Your task to perform on an android device: Search for pizza restaurants on Maps Image 0: 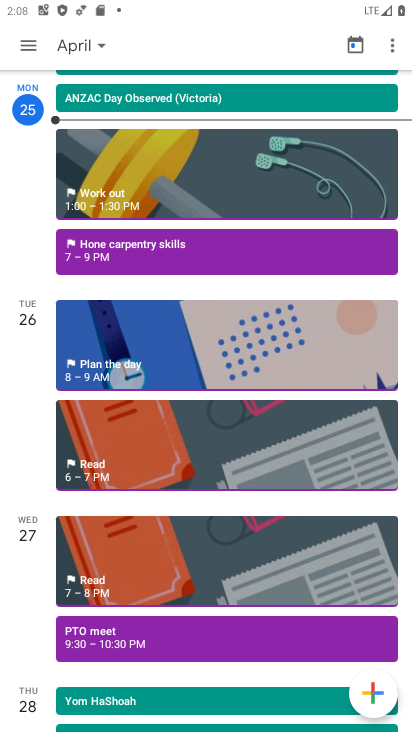
Step 0: press back button
Your task to perform on an android device: Search for pizza restaurants on Maps Image 1: 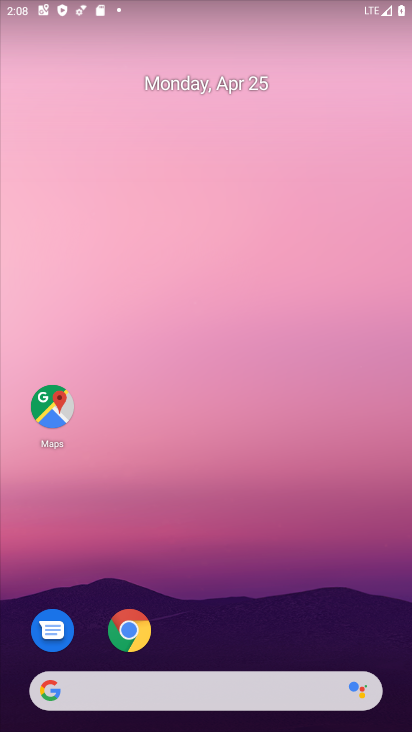
Step 1: drag from (356, 584) to (334, 35)
Your task to perform on an android device: Search for pizza restaurants on Maps Image 2: 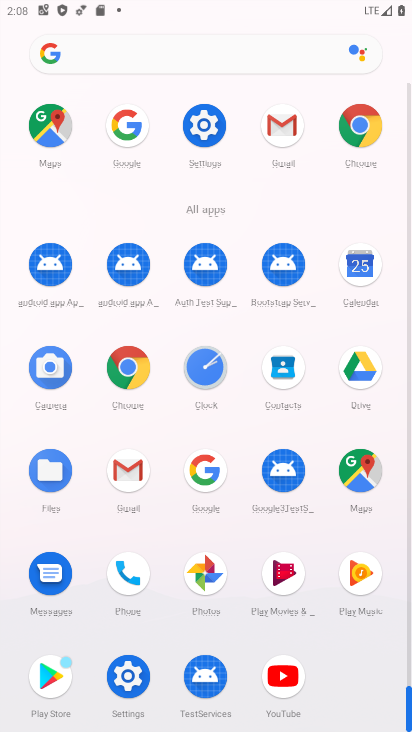
Step 2: click (364, 472)
Your task to perform on an android device: Search for pizza restaurants on Maps Image 3: 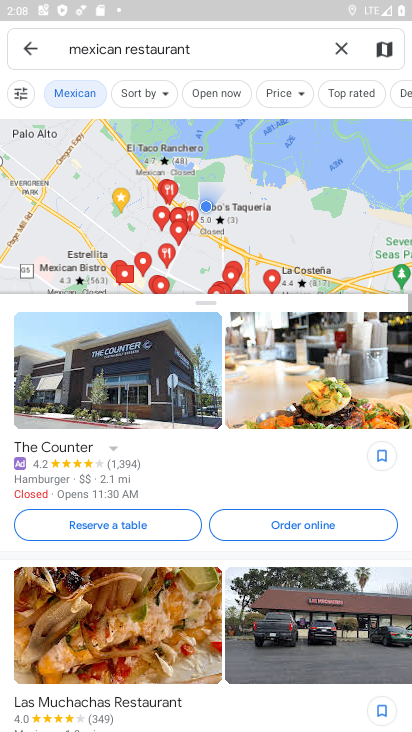
Step 3: click (259, 58)
Your task to perform on an android device: Search for pizza restaurants on Maps Image 4: 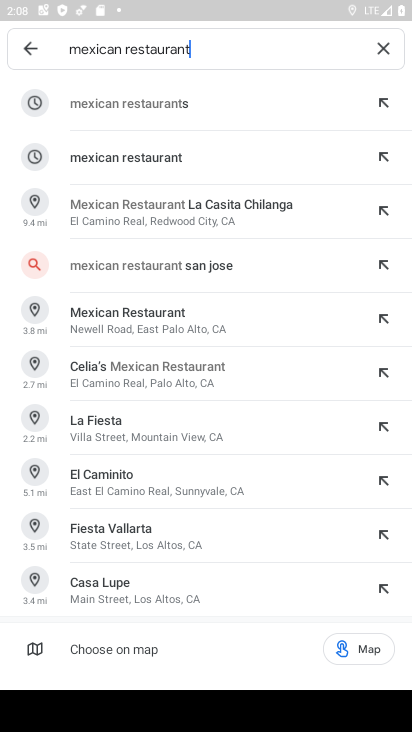
Step 4: click (377, 50)
Your task to perform on an android device: Search for pizza restaurants on Maps Image 5: 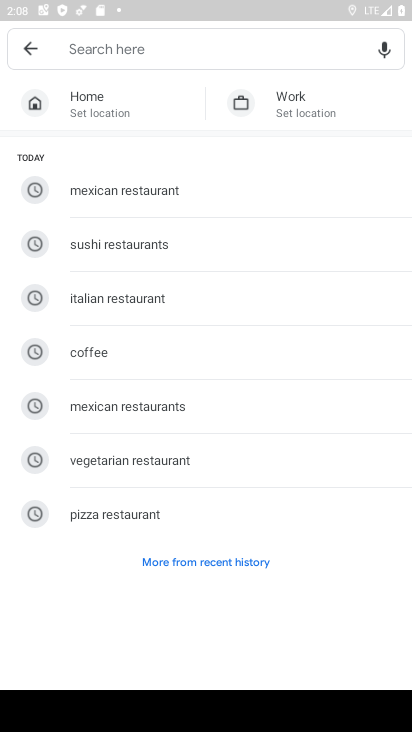
Step 5: click (162, 39)
Your task to perform on an android device: Search for pizza restaurants on Maps Image 6: 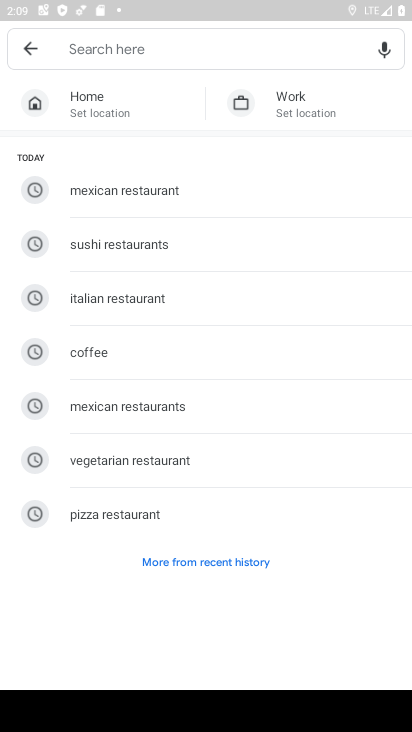
Step 6: type "pizzaa restaurants"
Your task to perform on an android device: Search for pizza restaurants on Maps Image 7: 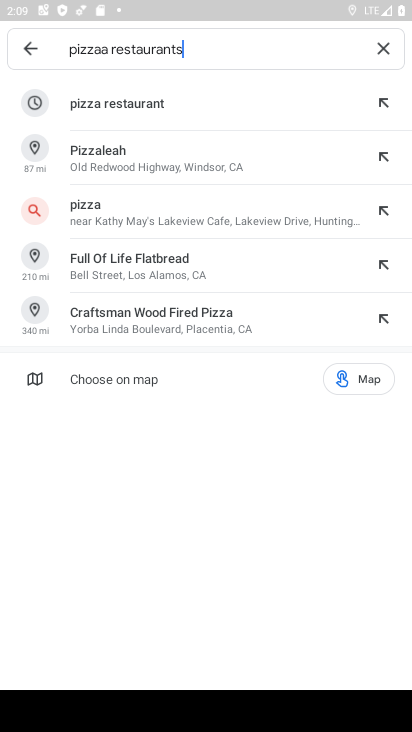
Step 7: click (168, 104)
Your task to perform on an android device: Search for pizza restaurants on Maps Image 8: 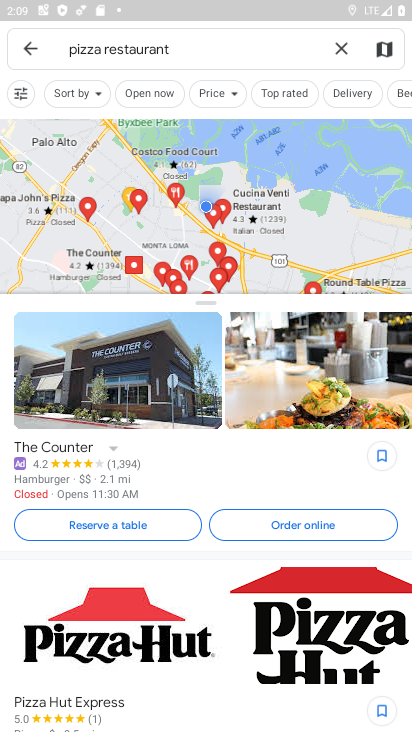
Step 8: task complete